Your task to perform on an android device: Go to accessibility settings Image 0: 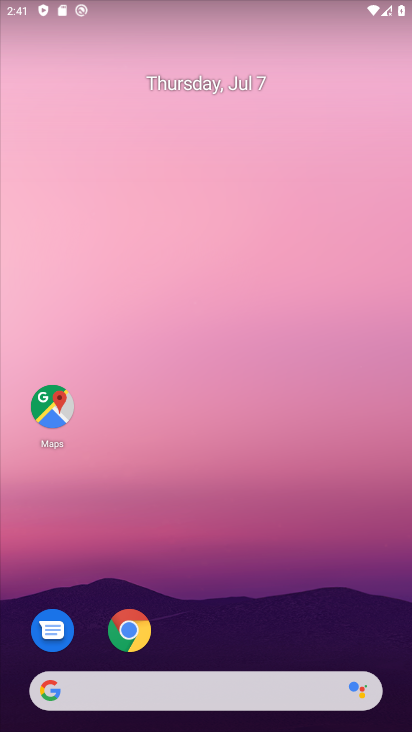
Step 0: drag from (273, 627) to (245, 369)
Your task to perform on an android device: Go to accessibility settings Image 1: 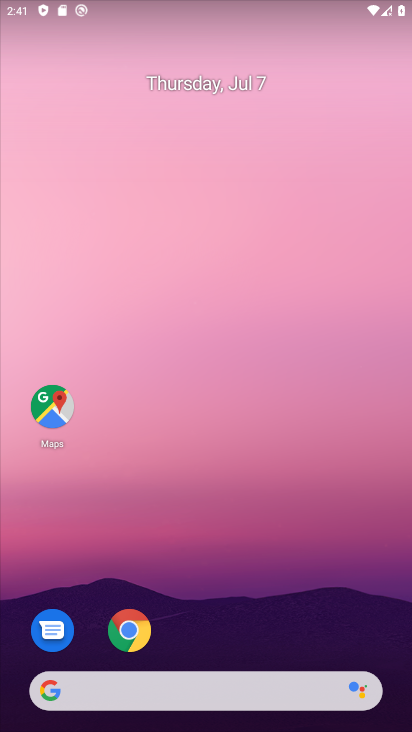
Step 1: drag from (278, 653) to (270, 311)
Your task to perform on an android device: Go to accessibility settings Image 2: 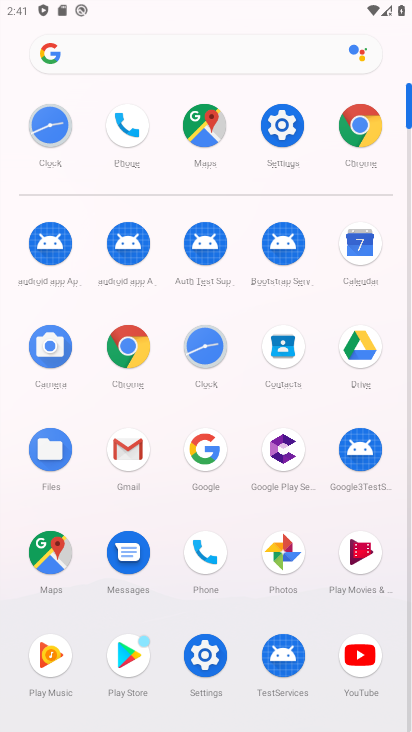
Step 2: click (291, 123)
Your task to perform on an android device: Go to accessibility settings Image 3: 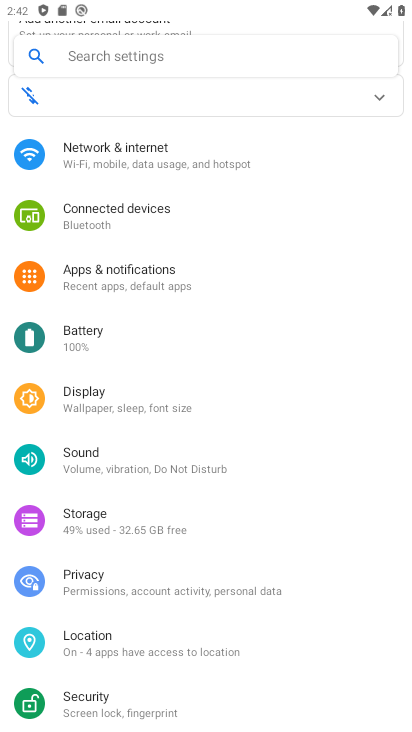
Step 3: drag from (189, 593) to (218, 180)
Your task to perform on an android device: Go to accessibility settings Image 4: 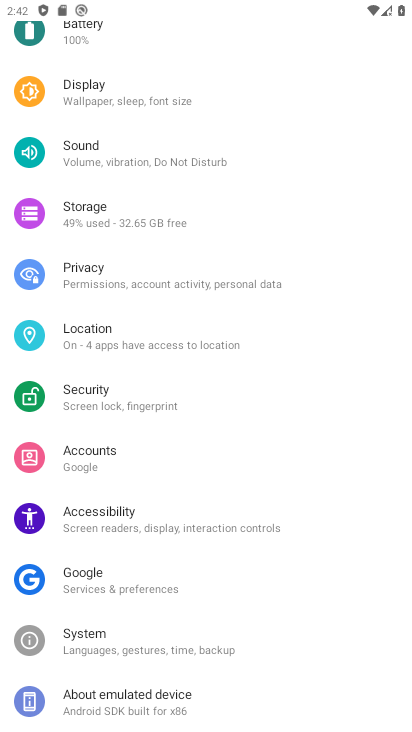
Step 4: click (158, 499)
Your task to perform on an android device: Go to accessibility settings Image 5: 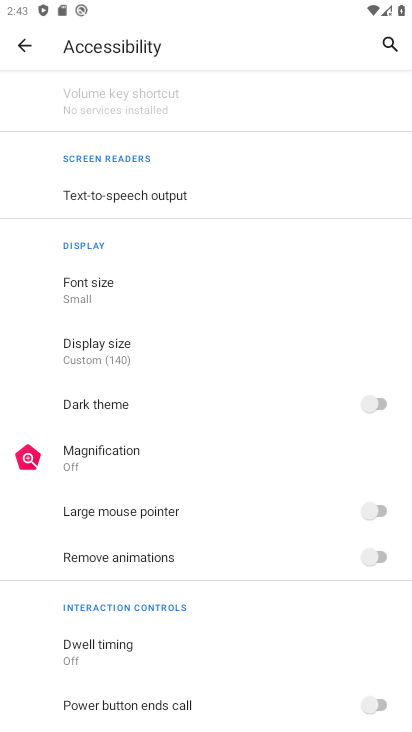
Step 5: task complete